Your task to perform on an android device: turn pop-ups on in chrome Image 0: 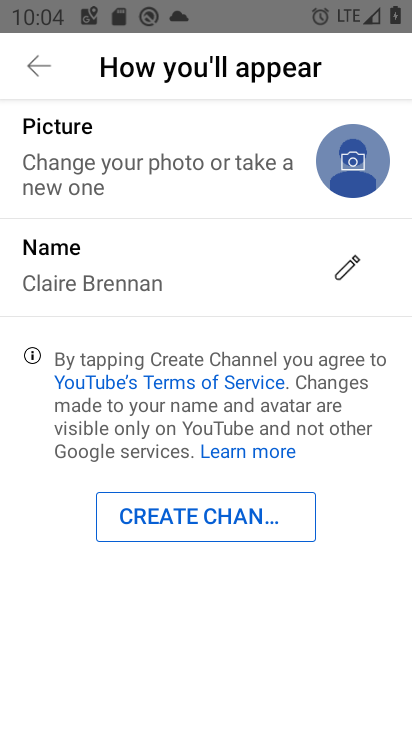
Step 0: press home button
Your task to perform on an android device: turn pop-ups on in chrome Image 1: 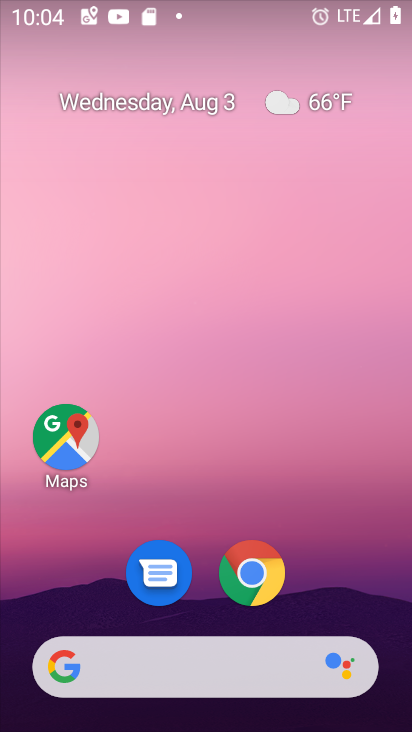
Step 1: click (255, 580)
Your task to perform on an android device: turn pop-ups on in chrome Image 2: 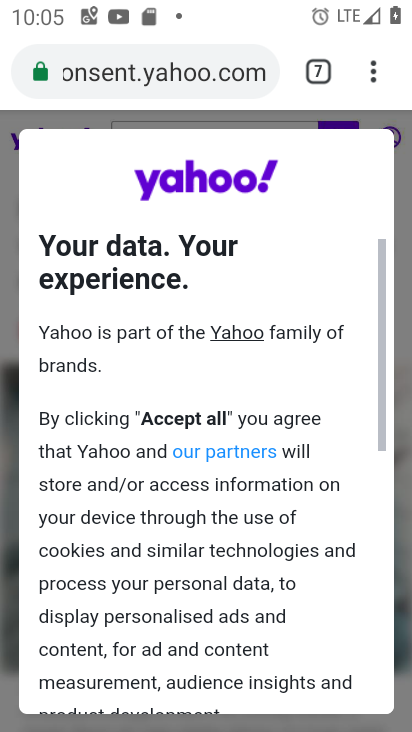
Step 2: drag from (377, 71) to (135, 578)
Your task to perform on an android device: turn pop-ups on in chrome Image 3: 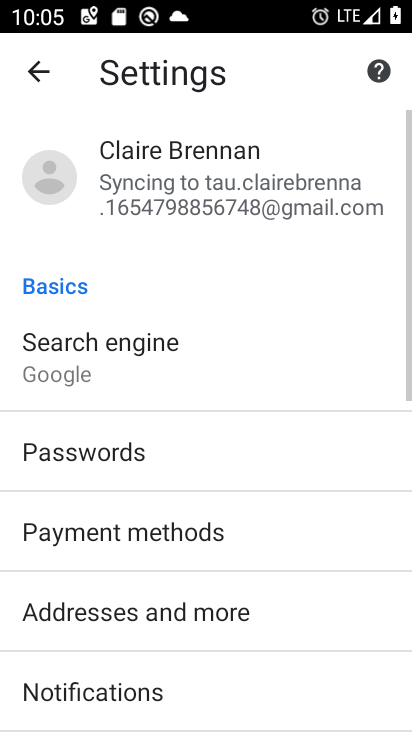
Step 3: drag from (221, 674) to (234, 263)
Your task to perform on an android device: turn pop-ups on in chrome Image 4: 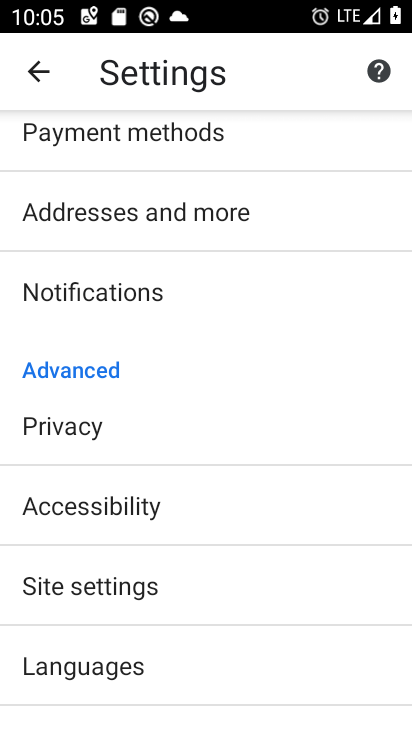
Step 4: click (116, 593)
Your task to perform on an android device: turn pop-ups on in chrome Image 5: 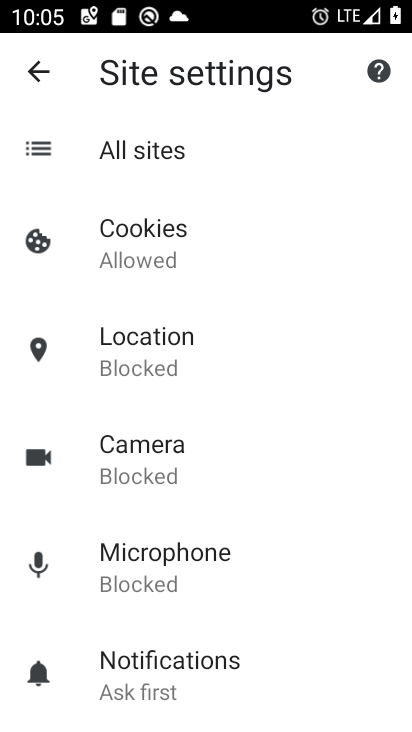
Step 5: drag from (229, 589) to (242, 158)
Your task to perform on an android device: turn pop-ups on in chrome Image 6: 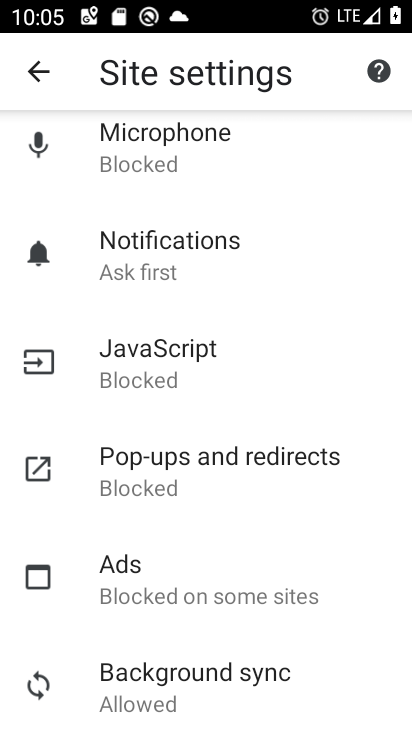
Step 6: click (149, 484)
Your task to perform on an android device: turn pop-ups on in chrome Image 7: 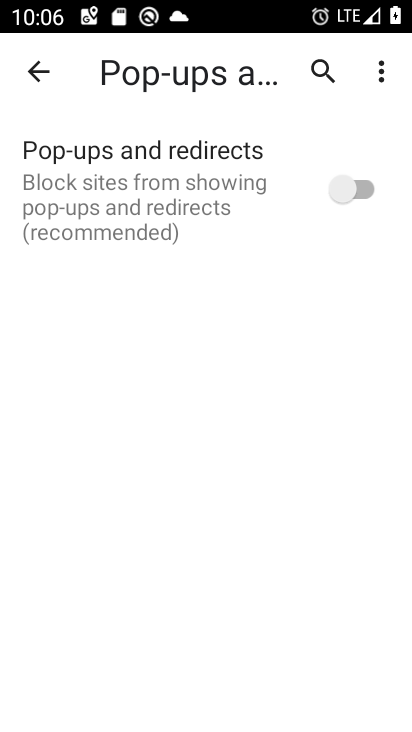
Step 7: click (354, 187)
Your task to perform on an android device: turn pop-ups on in chrome Image 8: 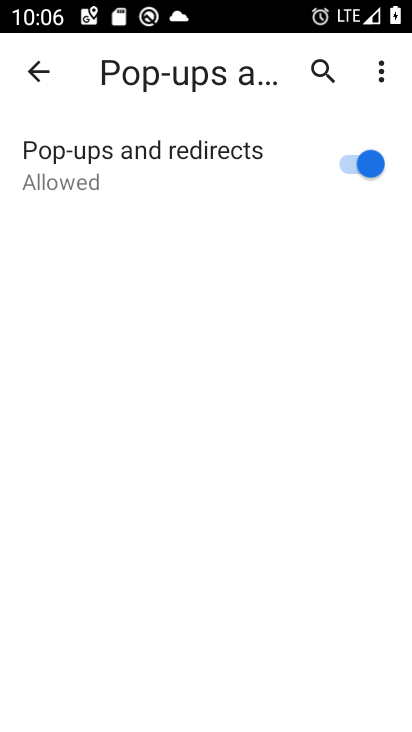
Step 8: task complete